Your task to perform on an android device: What is the recent news? Image 0: 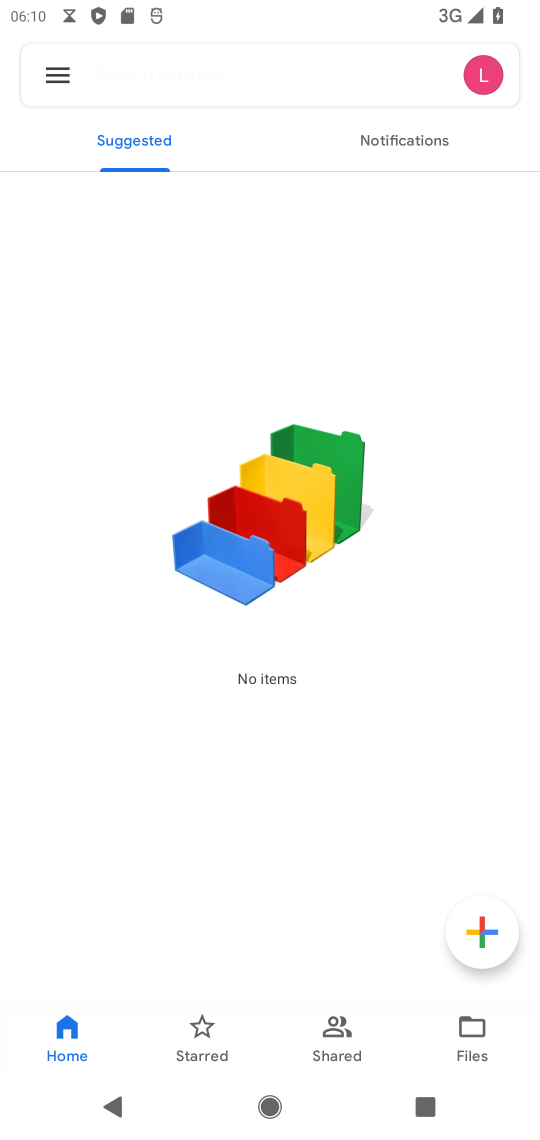
Step 0: press home button
Your task to perform on an android device: What is the recent news? Image 1: 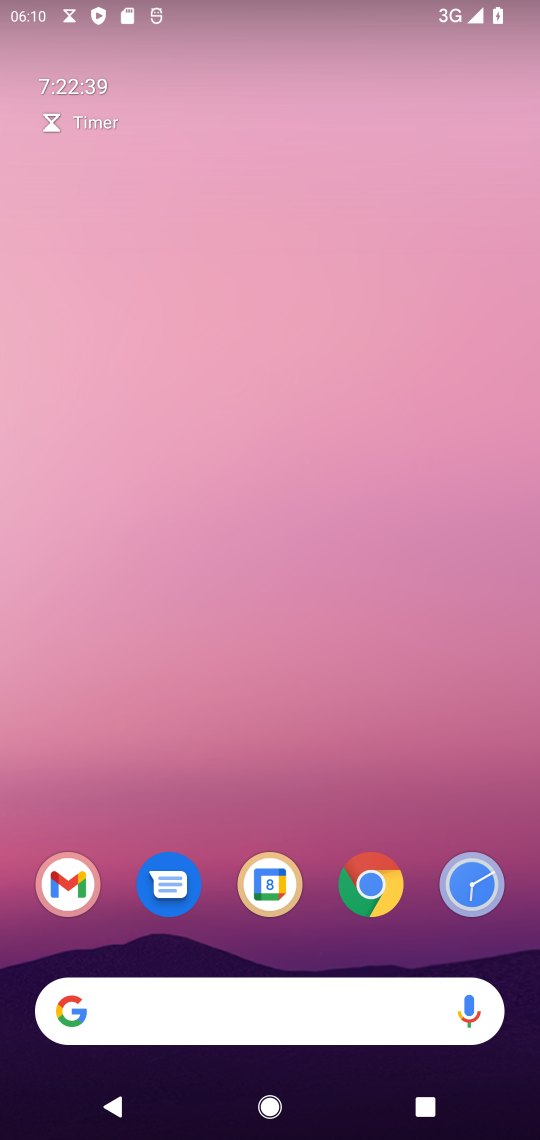
Step 1: drag from (327, 822) to (330, 94)
Your task to perform on an android device: What is the recent news? Image 2: 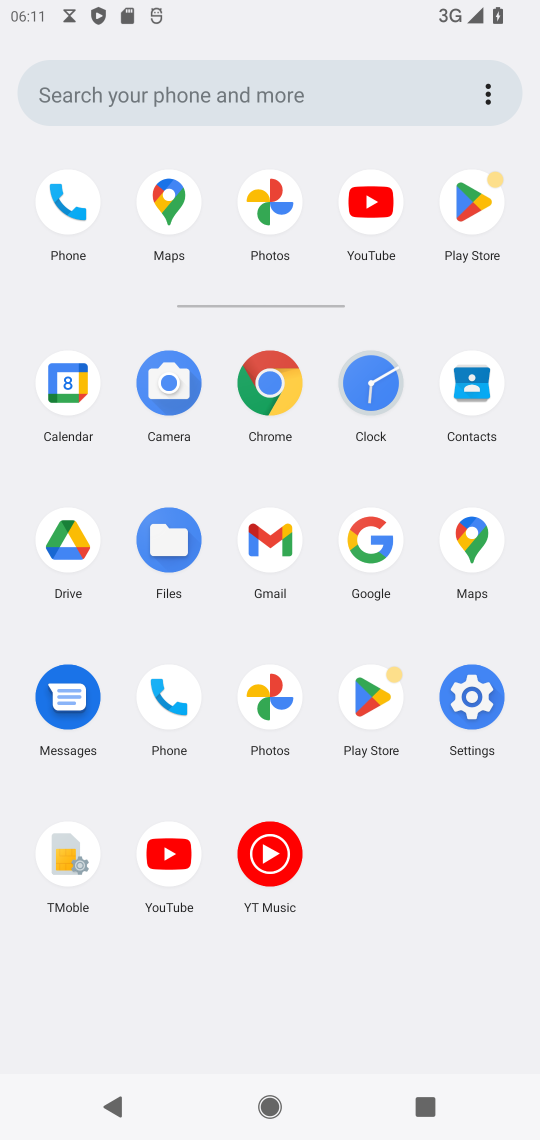
Step 2: click (276, 389)
Your task to perform on an android device: What is the recent news? Image 3: 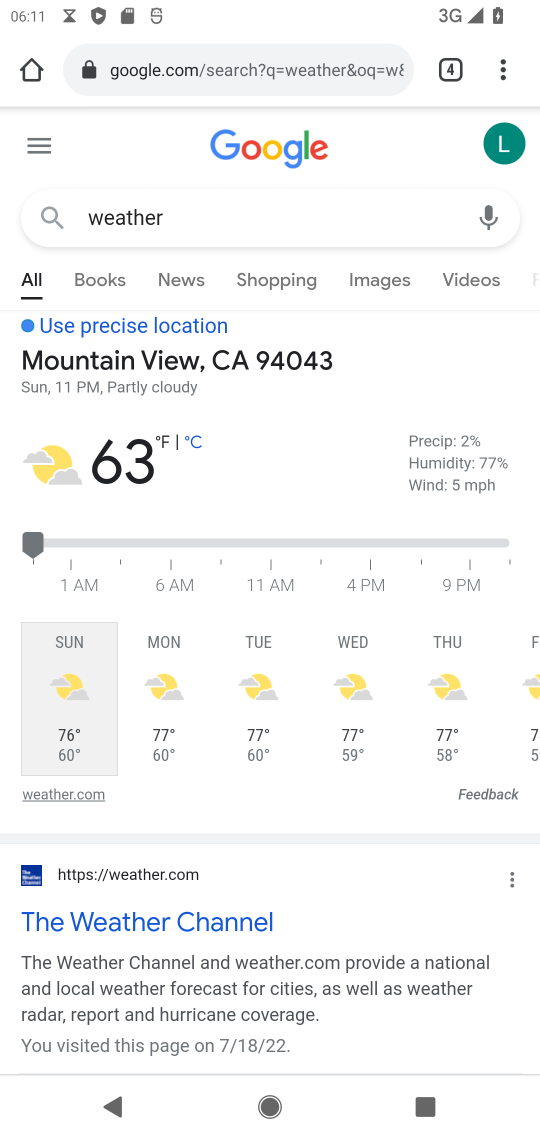
Step 3: click (197, 77)
Your task to perform on an android device: What is the recent news? Image 4: 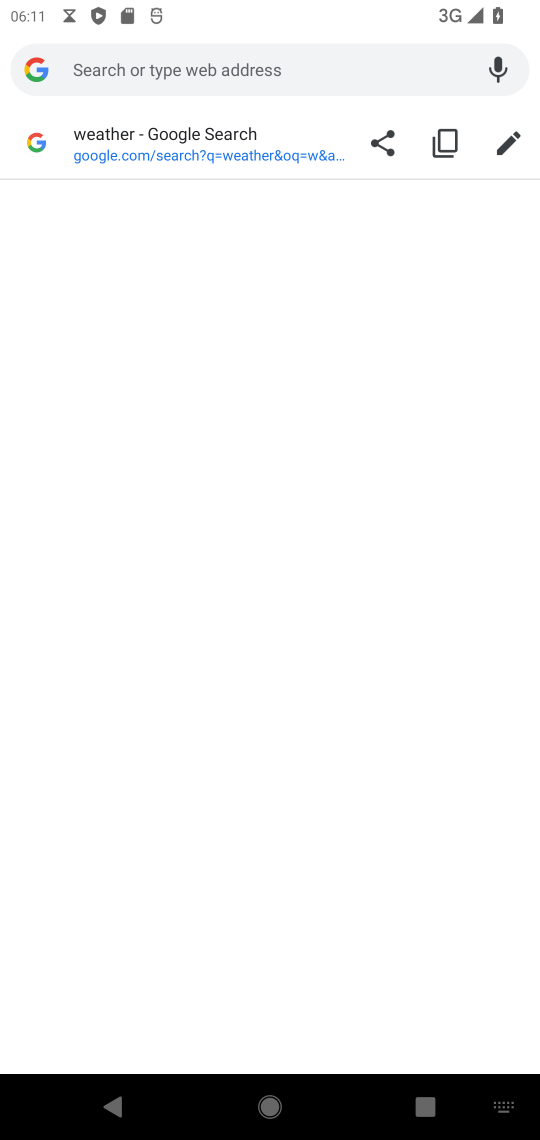
Step 4: type "What is the recent news?"
Your task to perform on an android device: What is the recent news? Image 5: 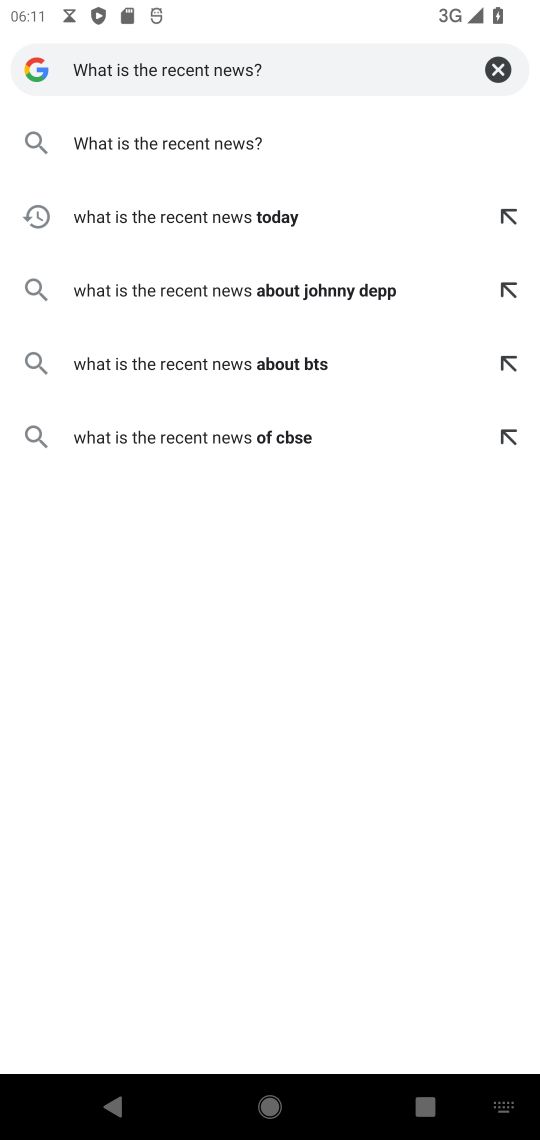
Step 5: click (249, 145)
Your task to perform on an android device: What is the recent news? Image 6: 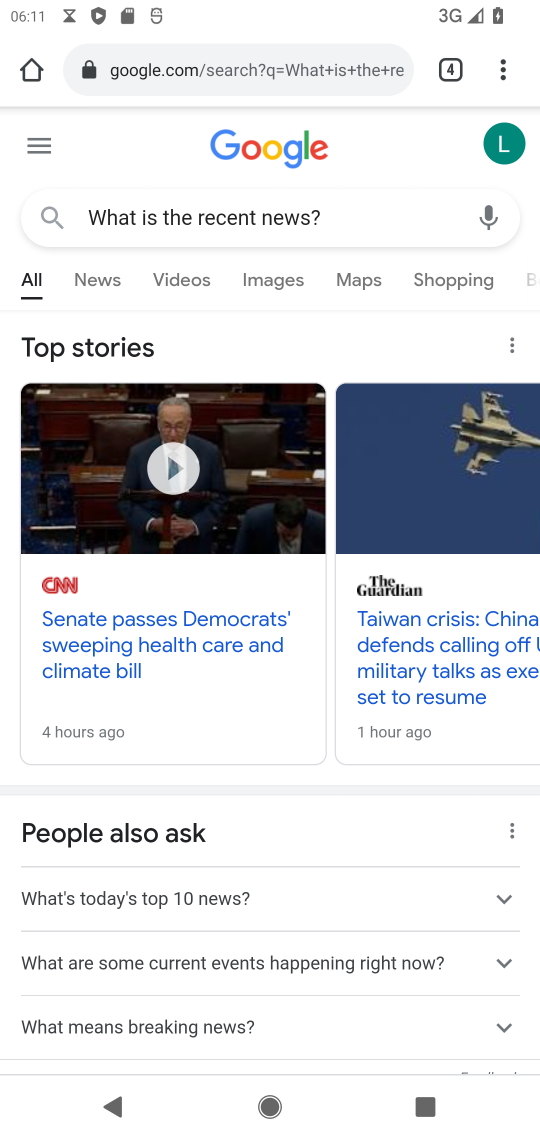
Step 6: task complete